Your task to perform on an android device: Go to Amazon Image 0: 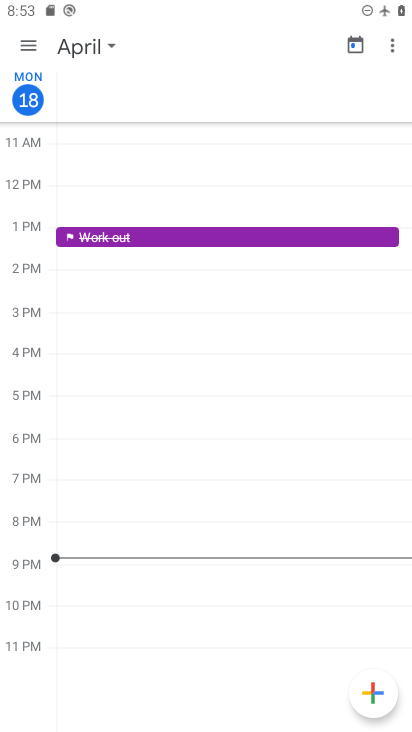
Step 0: press home button
Your task to perform on an android device: Go to Amazon Image 1: 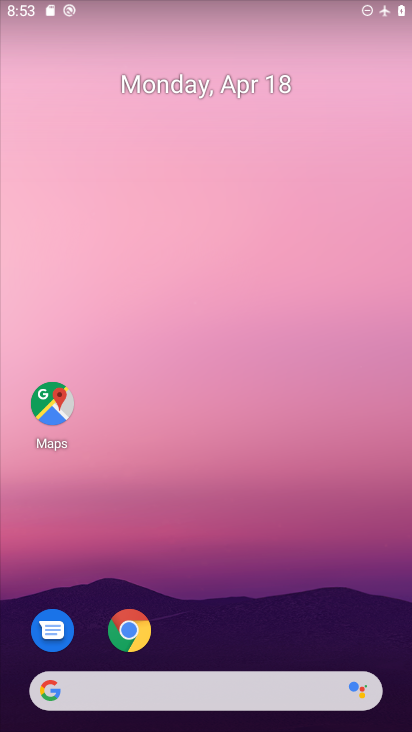
Step 1: drag from (209, 544) to (286, 9)
Your task to perform on an android device: Go to Amazon Image 2: 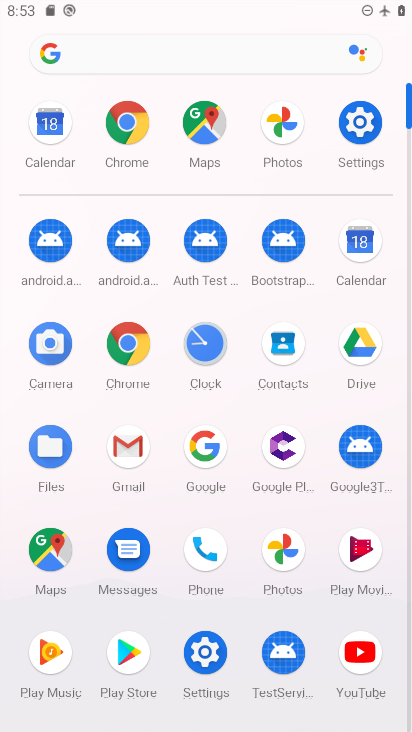
Step 2: click (118, 350)
Your task to perform on an android device: Go to Amazon Image 3: 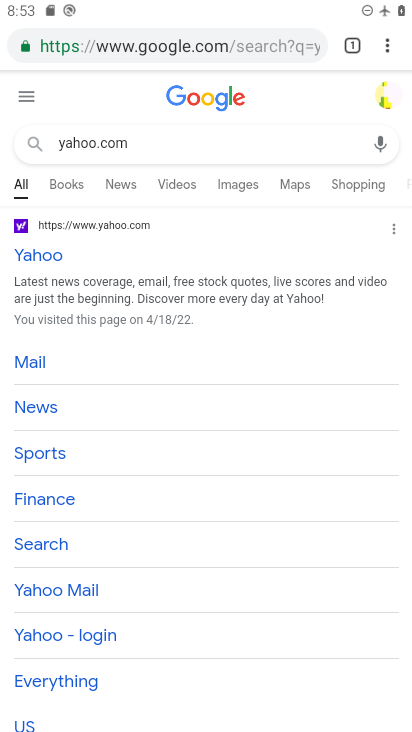
Step 3: click (100, 140)
Your task to perform on an android device: Go to Amazon Image 4: 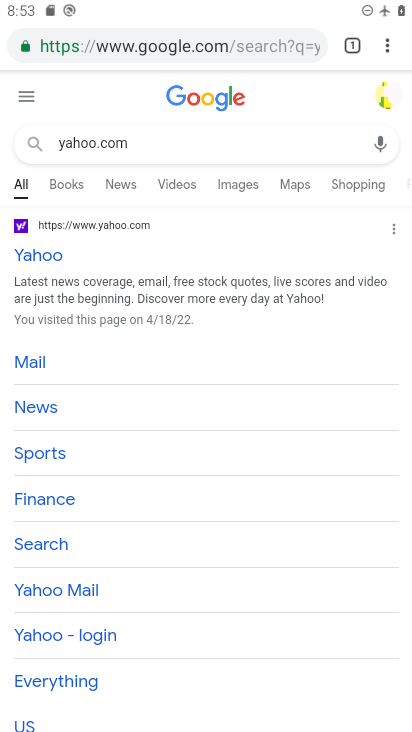
Step 4: click (100, 140)
Your task to perform on an android device: Go to Amazon Image 5: 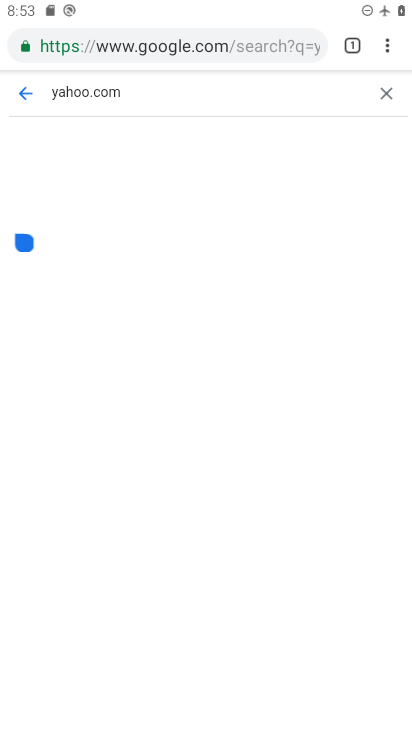
Step 5: click (144, 42)
Your task to perform on an android device: Go to Amazon Image 6: 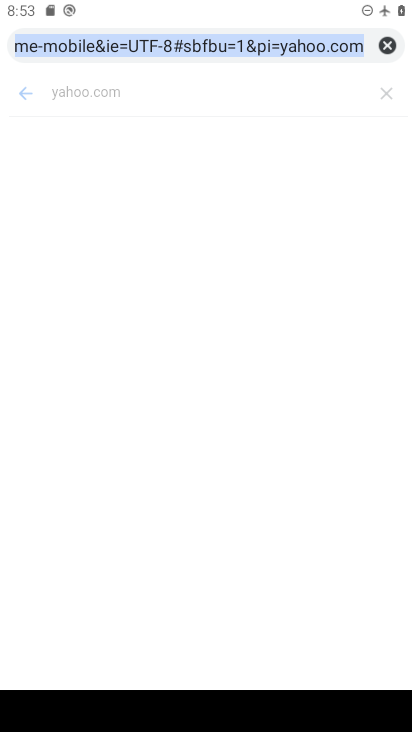
Step 6: type "amazon.com"
Your task to perform on an android device: Go to Amazon Image 7: 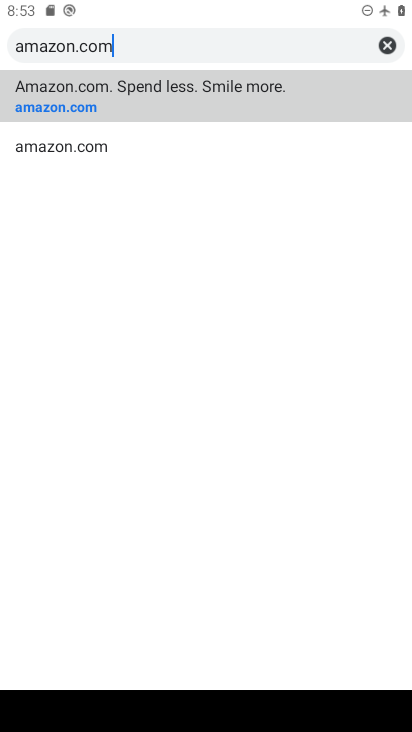
Step 7: click (88, 147)
Your task to perform on an android device: Go to Amazon Image 8: 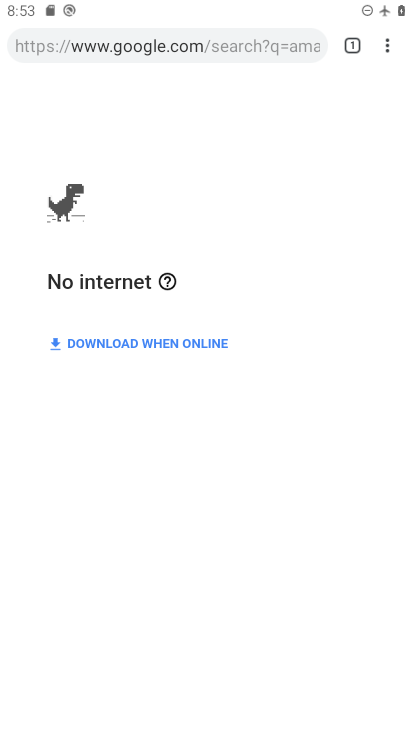
Step 8: task complete